Your task to perform on an android device: Play the last video I watched on Youtube Image 0: 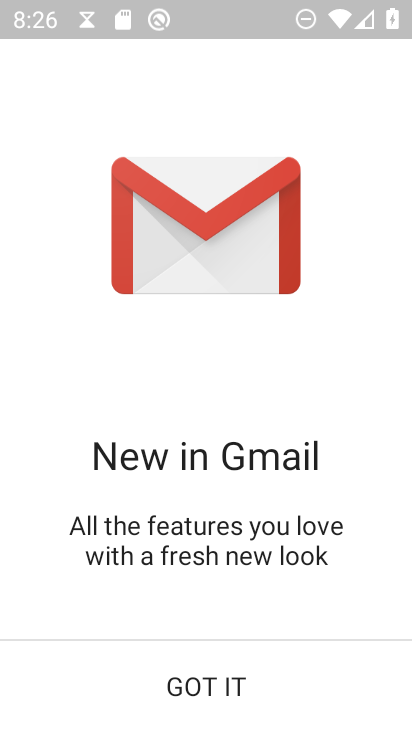
Step 0: press home button
Your task to perform on an android device: Play the last video I watched on Youtube Image 1: 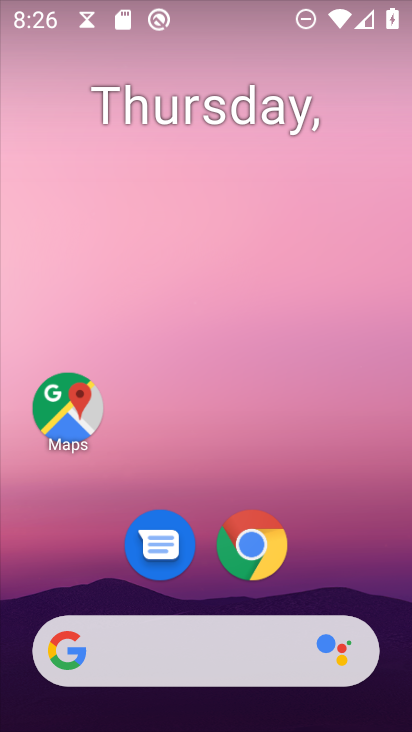
Step 1: drag from (333, 574) to (304, 77)
Your task to perform on an android device: Play the last video I watched on Youtube Image 2: 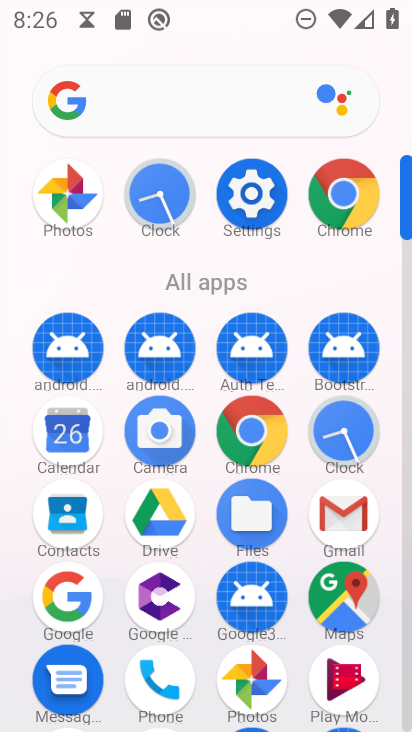
Step 2: drag from (300, 493) to (322, 272)
Your task to perform on an android device: Play the last video I watched on Youtube Image 3: 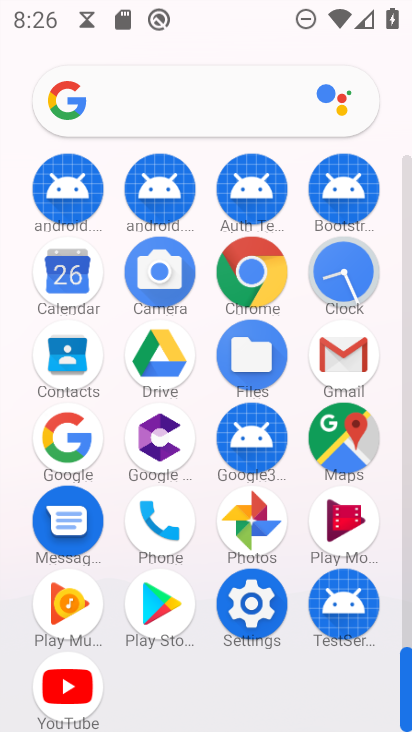
Step 3: click (68, 687)
Your task to perform on an android device: Play the last video I watched on Youtube Image 4: 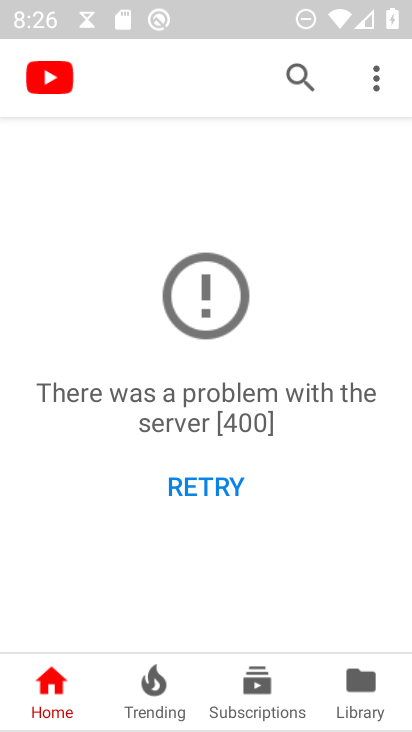
Step 4: click (204, 485)
Your task to perform on an android device: Play the last video I watched on Youtube Image 5: 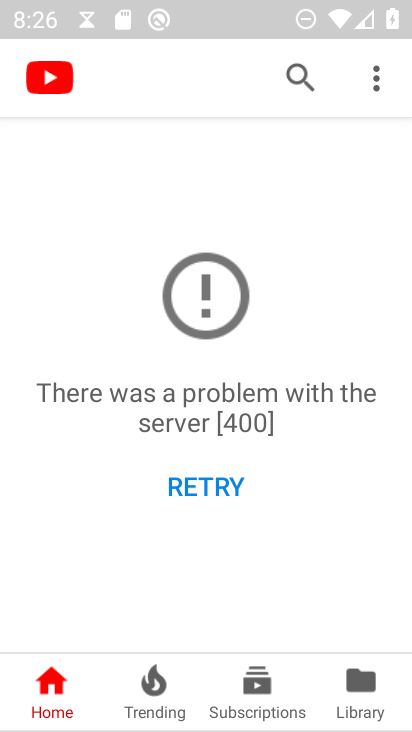
Step 5: click (204, 485)
Your task to perform on an android device: Play the last video I watched on Youtube Image 6: 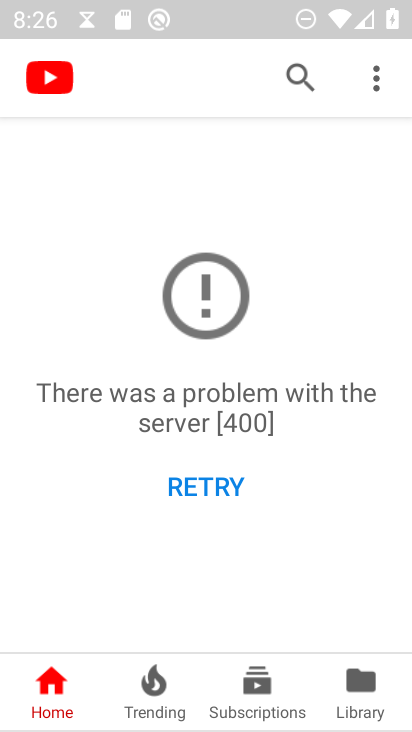
Step 6: click (204, 485)
Your task to perform on an android device: Play the last video I watched on Youtube Image 7: 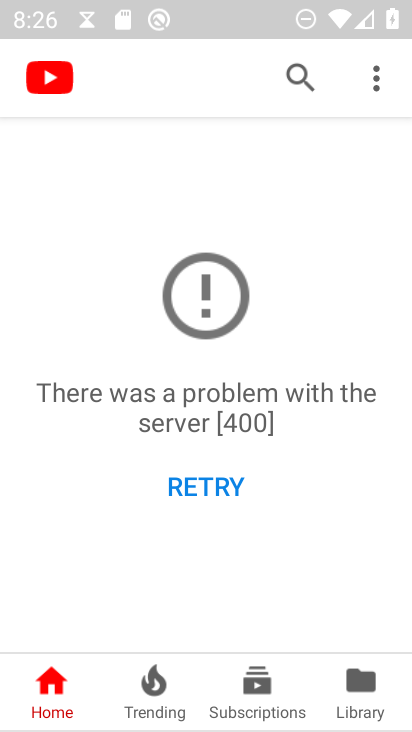
Step 7: click (204, 485)
Your task to perform on an android device: Play the last video I watched on Youtube Image 8: 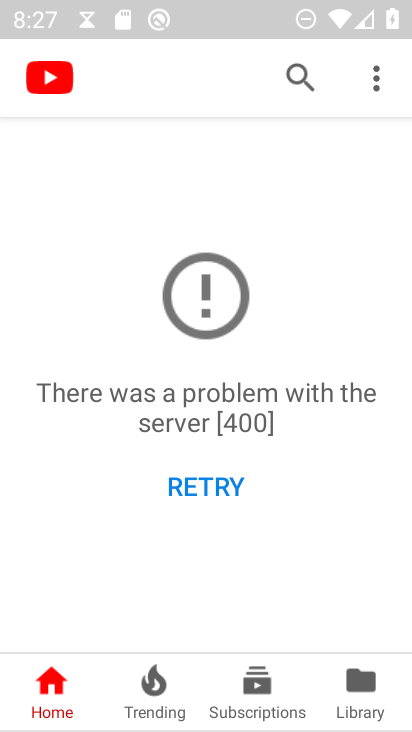
Step 8: task complete